Your task to perform on an android device: Open location settings Image 0: 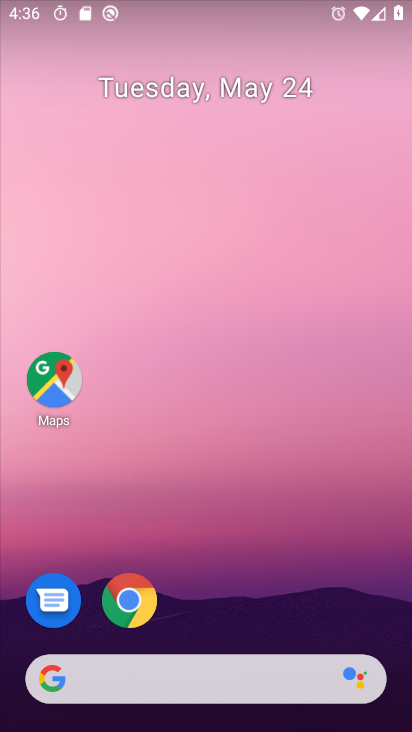
Step 0: drag from (245, 20) to (216, 444)
Your task to perform on an android device: Open location settings Image 1: 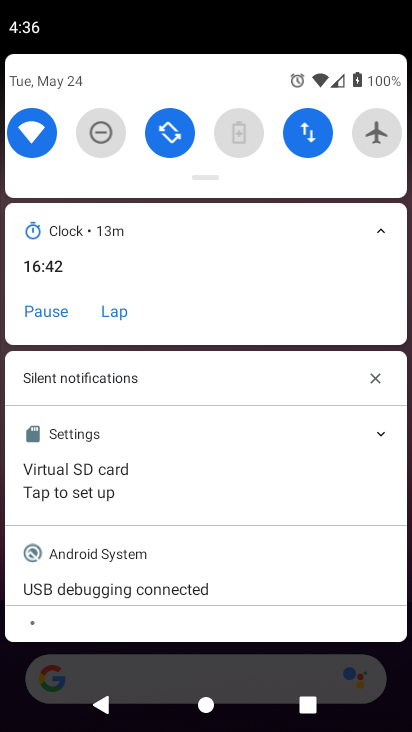
Step 1: drag from (221, 694) to (240, 69)
Your task to perform on an android device: Open location settings Image 2: 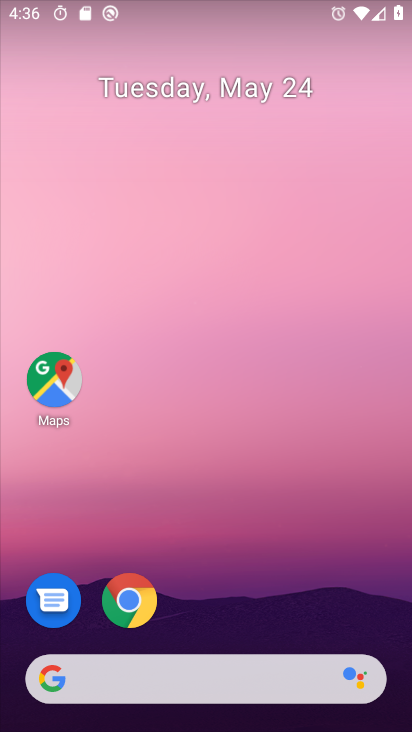
Step 2: drag from (221, 645) to (287, 9)
Your task to perform on an android device: Open location settings Image 3: 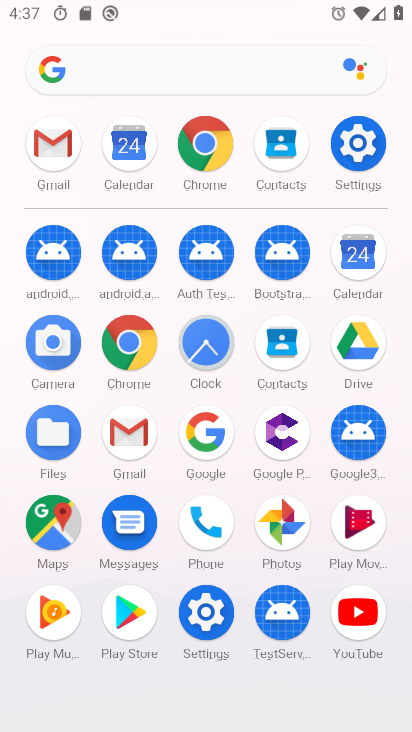
Step 3: click (352, 149)
Your task to perform on an android device: Open location settings Image 4: 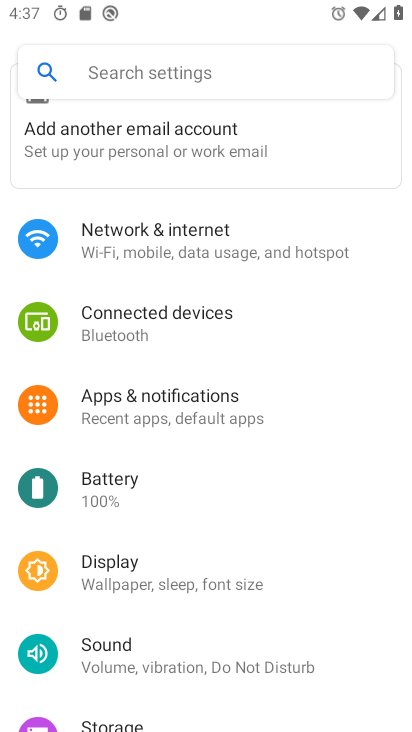
Step 4: drag from (153, 666) to (242, 189)
Your task to perform on an android device: Open location settings Image 5: 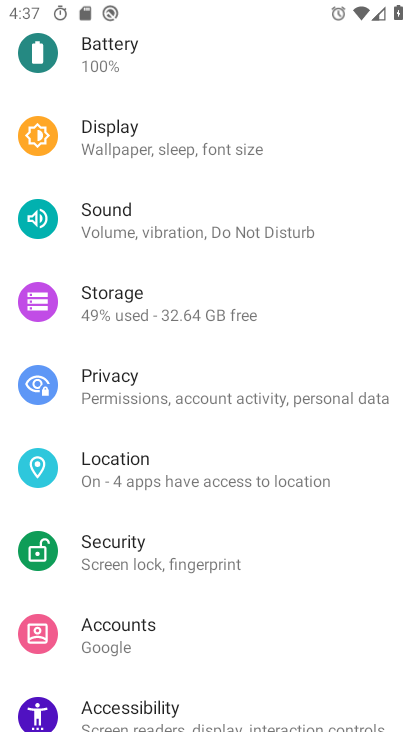
Step 5: click (153, 467)
Your task to perform on an android device: Open location settings Image 6: 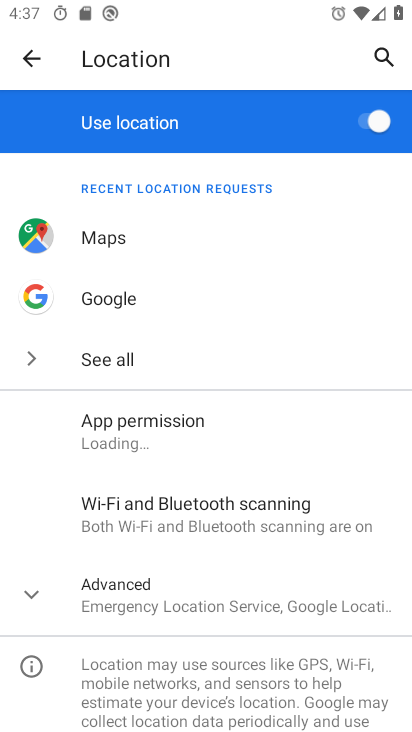
Step 6: task complete